Your task to perform on an android device: turn on bluetooth scan Image 0: 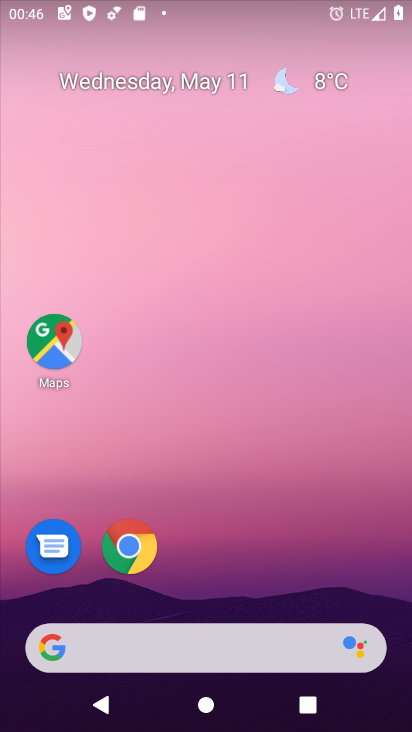
Step 0: drag from (201, 649) to (390, 36)
Your task to perform on an android device: turn on bluetooth scan Image 1: 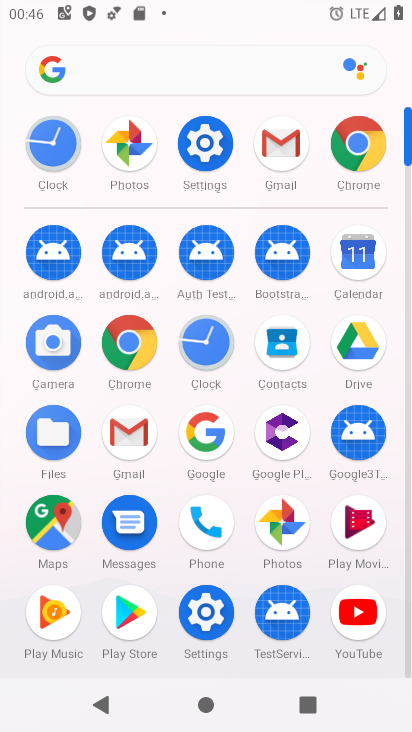
Step 1: click (215, 133)
Your task to perform on an android device: turn on bluetooth scan Image 2: 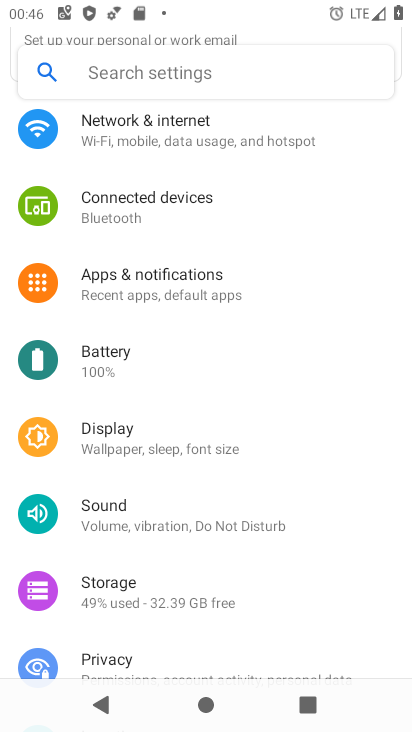
Step 2: drag from (246, 473) to (405, 282)
Your task to perform on an android device: turn on bluetooth scan Image 3: 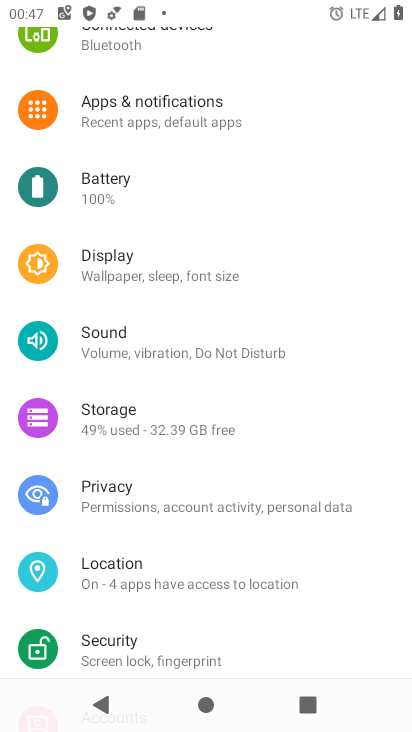
Step 3: click (99, 574)
Your task to perform on an android device: turn on bluetooth scan Image 4: 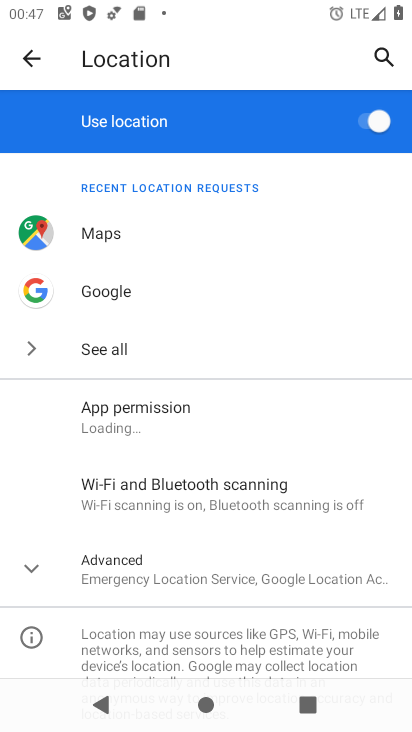
Step 4: click (213, 484)
Your task to perform on an android device: turn on bluetooth scan Image 5: 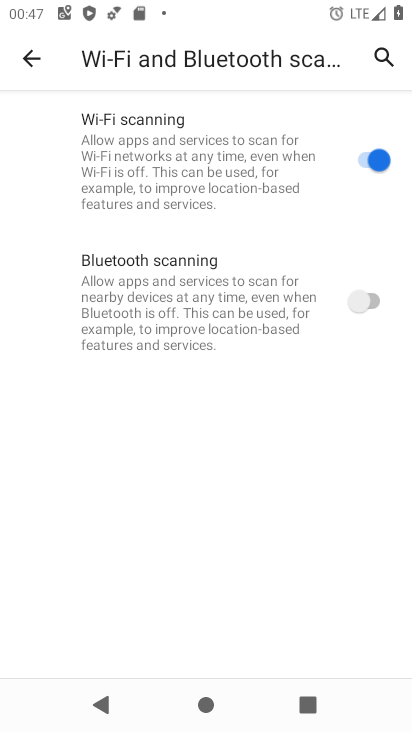
Step 5: click (374, 297)
Your task to perform on an android device: turn on bluetooth scan Image 6: 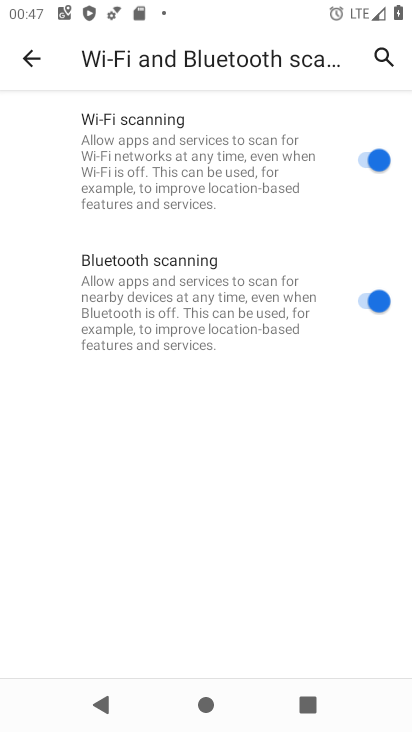
Step 6: task complete